Your task to perform on an android device: Open location settings Image 0: 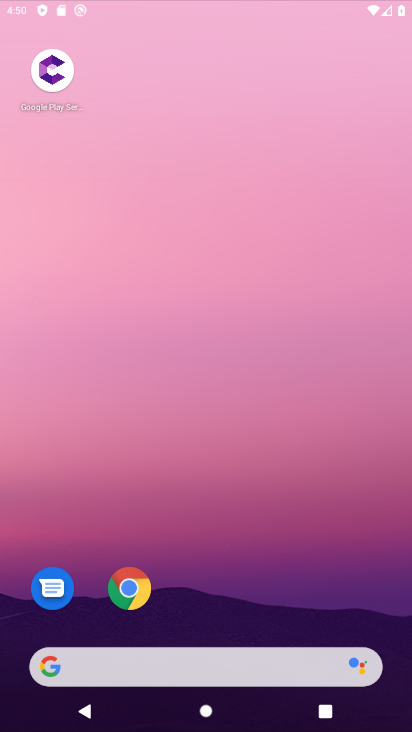
Step 0: click (300, 25)
Your task to perform on an android device: Open location settings Image 1: 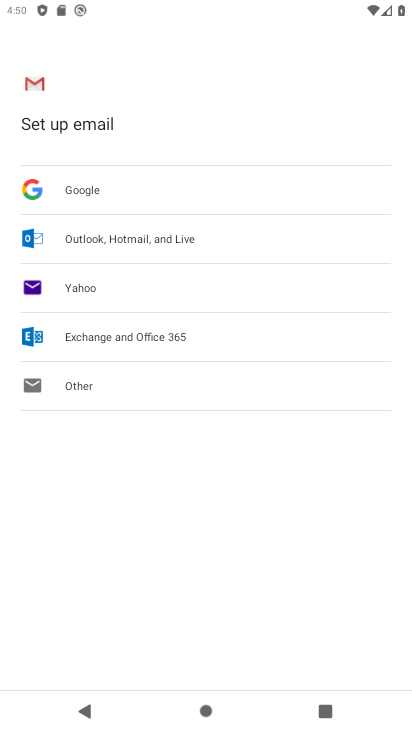
Step 1: press back button
Your task to perform on an android device: Open location settings Image 2: 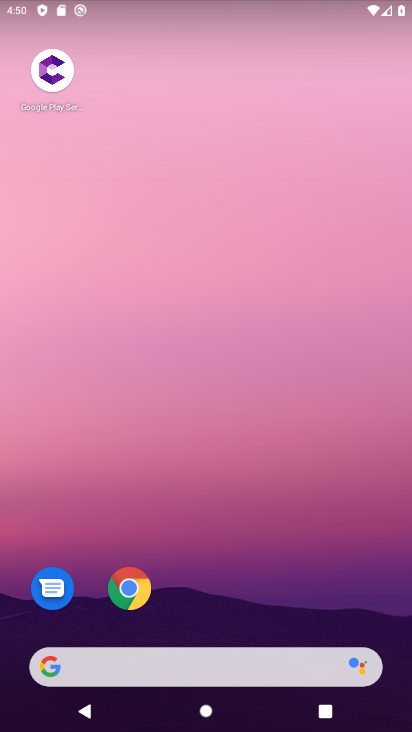
Step 2: drag from (242, 517) to (39, 235)
Your task to perform on an android device: Open location settings Image 3: 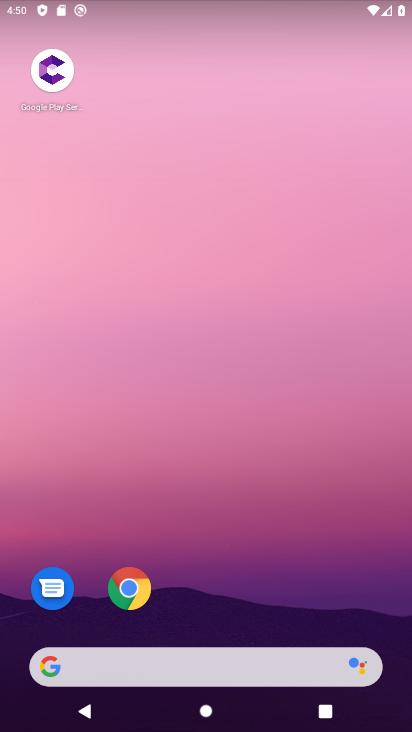
Step 3: drag from (239, 622) to (275, 26)
Your task to perform on an android device: Open location settings Image 4: 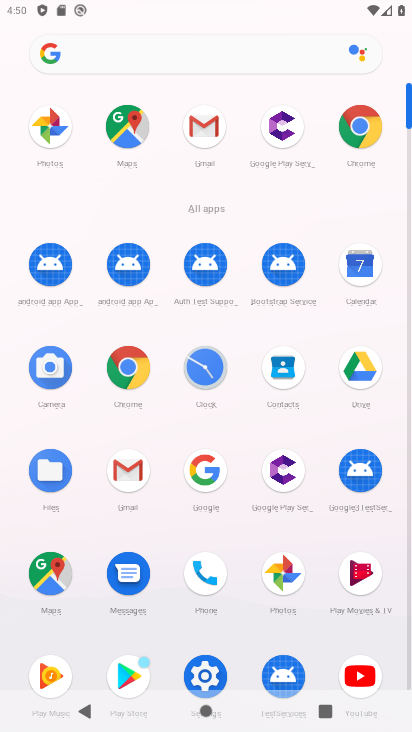
Step 4: click (214, 677)
Your task to perform on an android device: Open location settings Image 5: 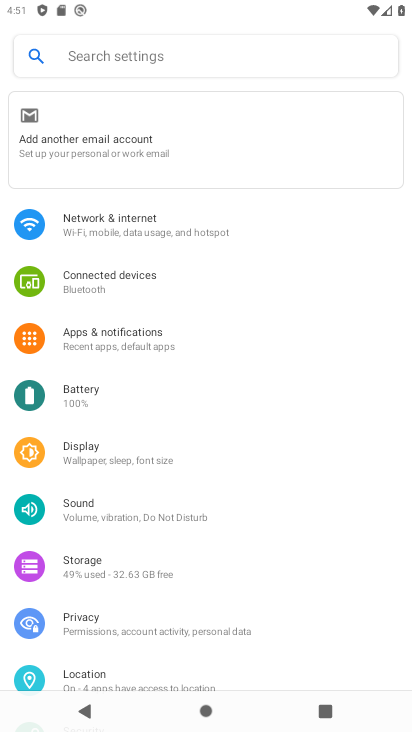
Step 5: click (121, 671)
Your task to perform on an android device: Open location settings Image 6: 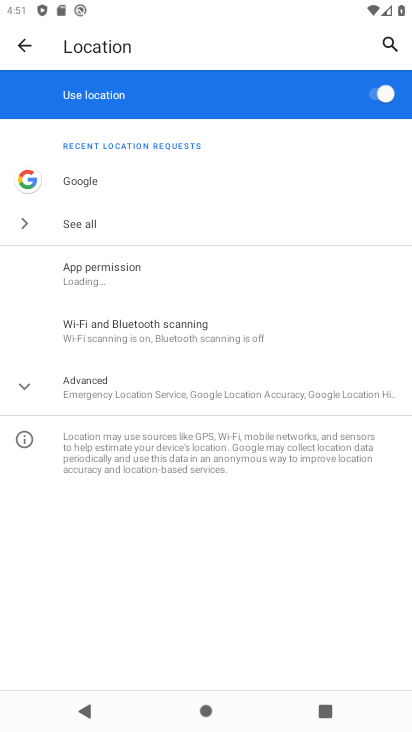
Step 6: task complete